Your task to perform on an android device: delete a single message in the gmail app Image 0: 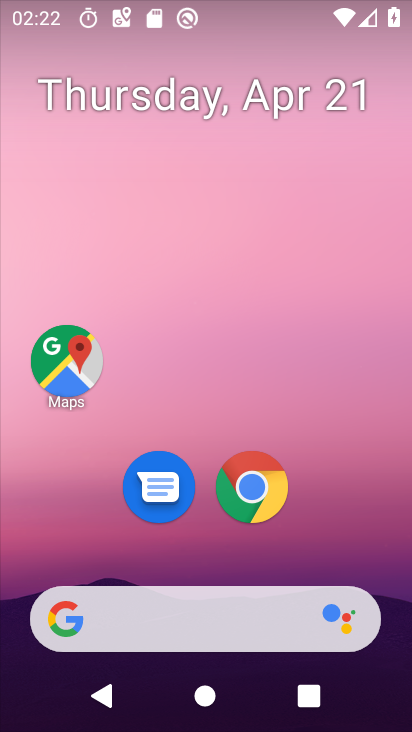
Step 0: drag from (201, 571) to (299, 136)
Your task to perform on an android device: delete a single message in the gmail app Image 1: 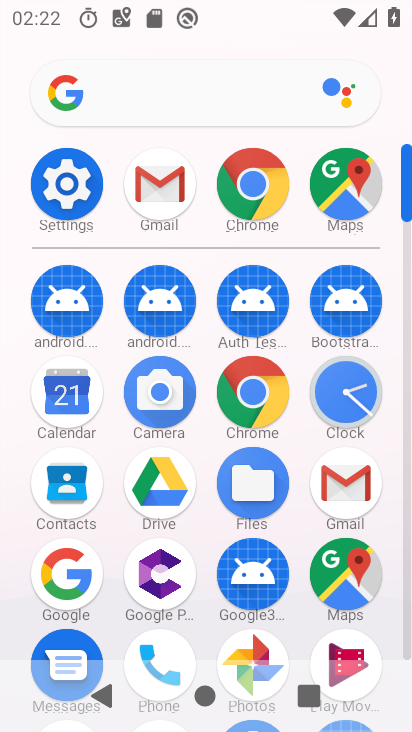
Step 1: click (335, 490)
Your task to perform on an android device: delete a single message in the gmail app Image 2: 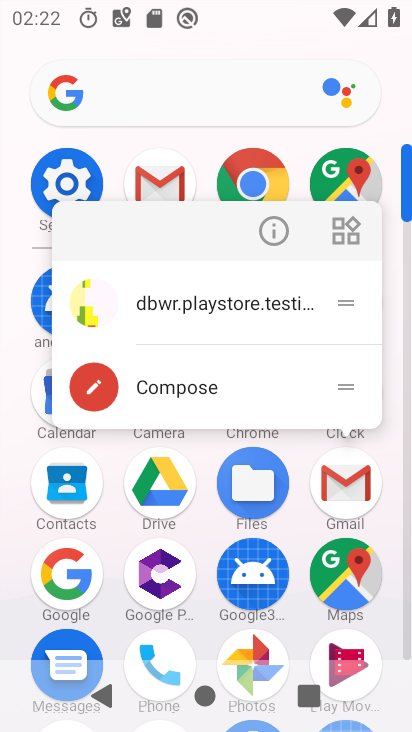
Step 2: click (287, 218)
Your task to perform on an android device: delete a single message in the gmail app Image 3: 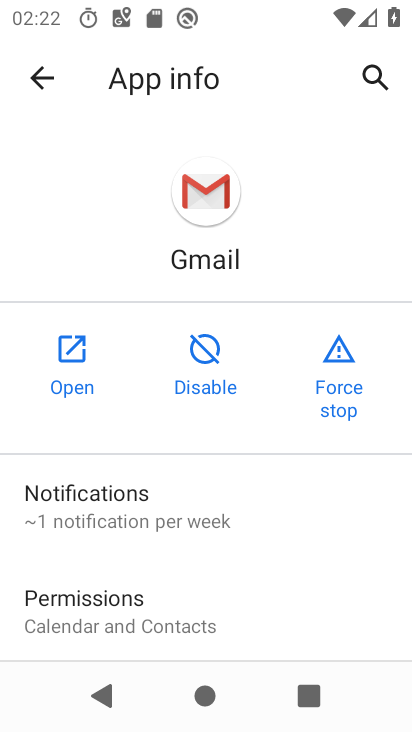
Step 3: click (85, 352)
Your task to perform on an android device: delete a single message in the gmail app Image 4: 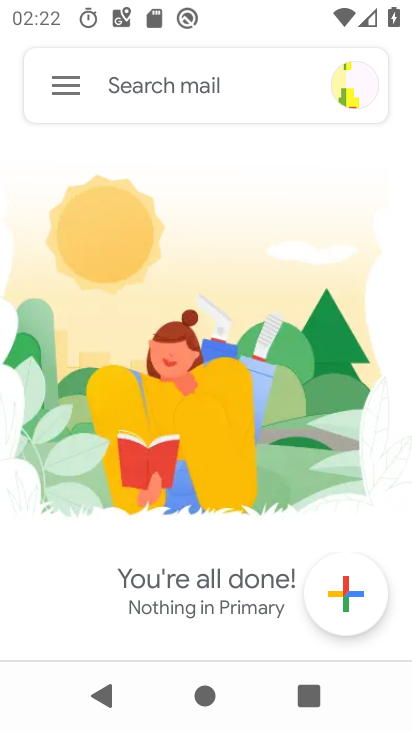
Step 4: click (65, 98)
Your task to perform on an android device: delete a single message in the gmail app Image 5: 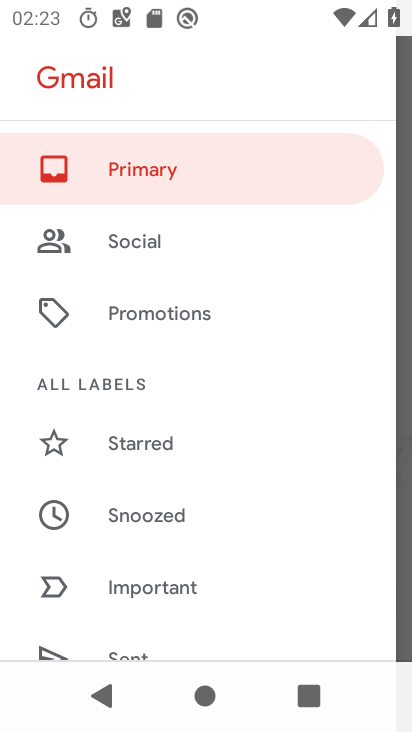
Step 5: drag from (282, 516) to (290, 105)
Your task to perform on an android device: delete a single message in the gmail app Image 6: 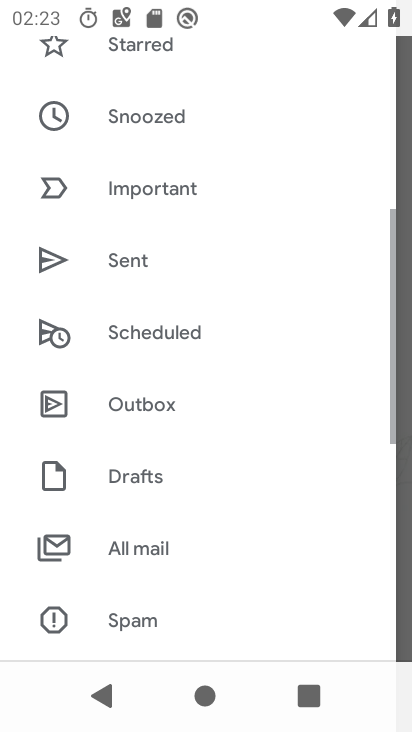
Step 6: drag from (175, 185) to (324, 727)
Your task to perform on an android device: delete a single message in the gmail app Image 7: 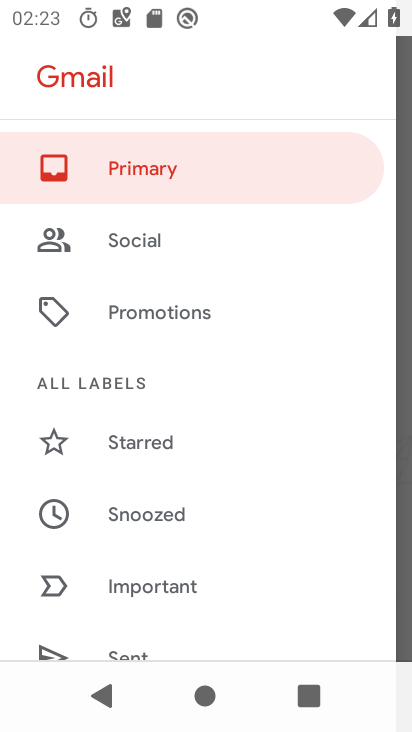
Step 7: click (131, 168)
Your task to perform on an android device: delete a single message in the gmail app Image 8: 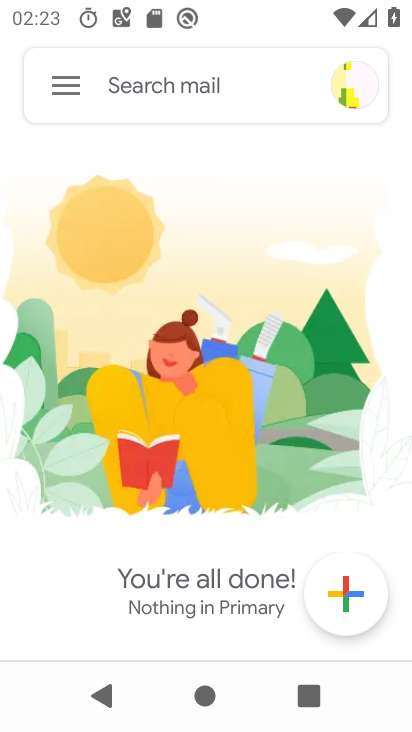
Step 8: task complete